Your task to perform on an android device: Play the last video I watched on Youtube Image 0: 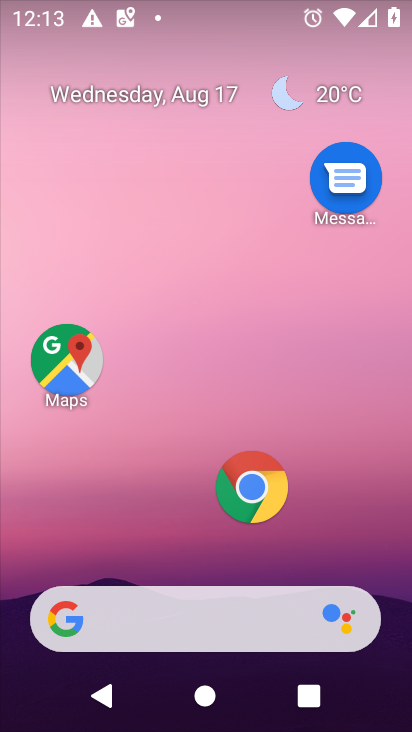
Step 0: drag from (168, 514) to (383, 521)
Your task to perform on an android device: Play the last video I watched on Youtube Image 1: 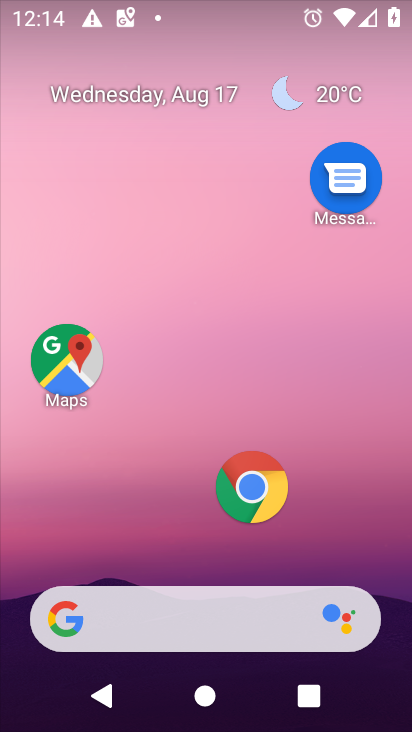
Step 1: drag from (259, 502) to (342, 68)
Your task to perform on an android device: Play the last video I watched on Youtube Image 2: 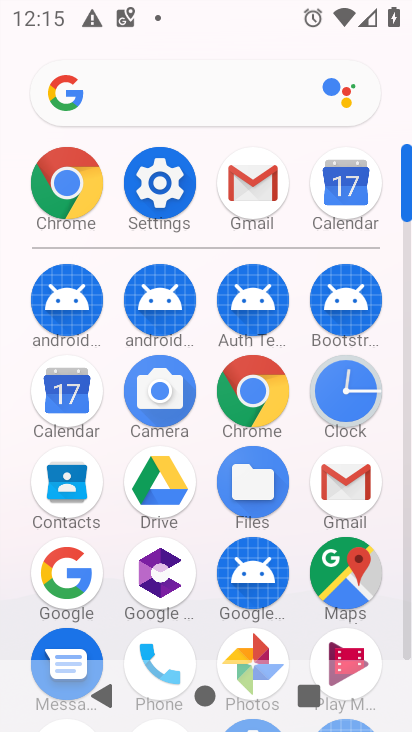
Step 2: drag from (220, 655) to (383, 0)
Your task to perform on an android device: Play the last video I watched on Youtube Image 3: 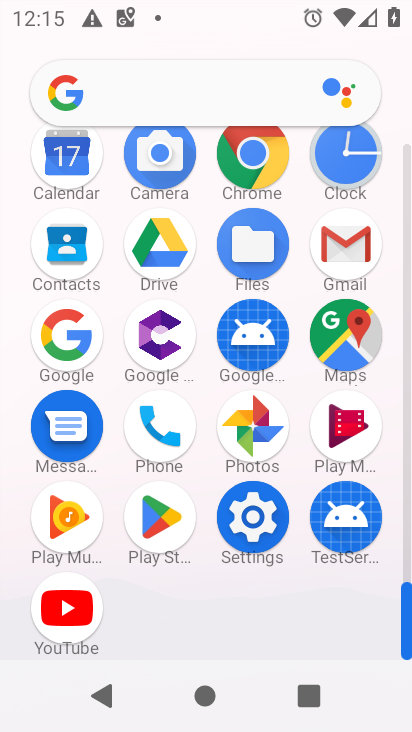
Step 3: click (67, 626)
Your task to perform on an android device: Play the last video I watched on Youtube Image 4: 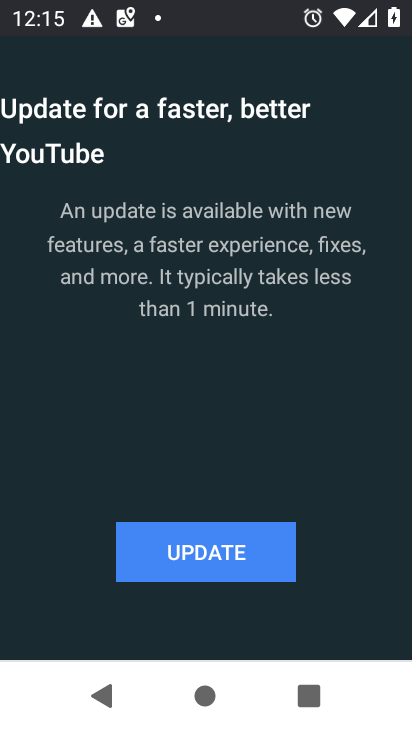
Step 4: click (244, 551)
Your task to perform on an android device: Play the last video I watched on Youtube Image 5: 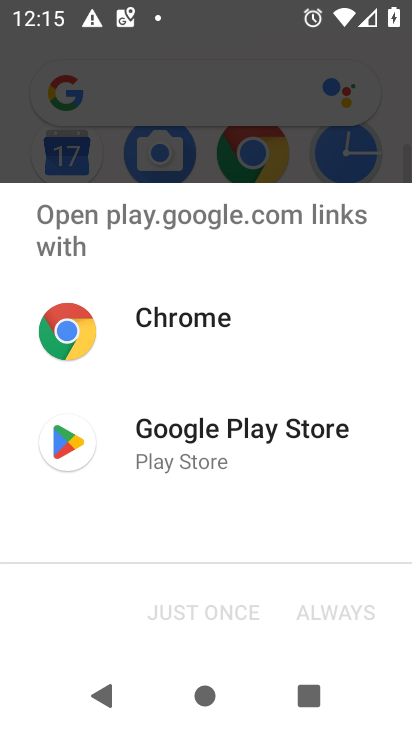
Step 5: click (215, 449)
Your task to perform on an android device: Play the last video I watched on Youtube Image 6: 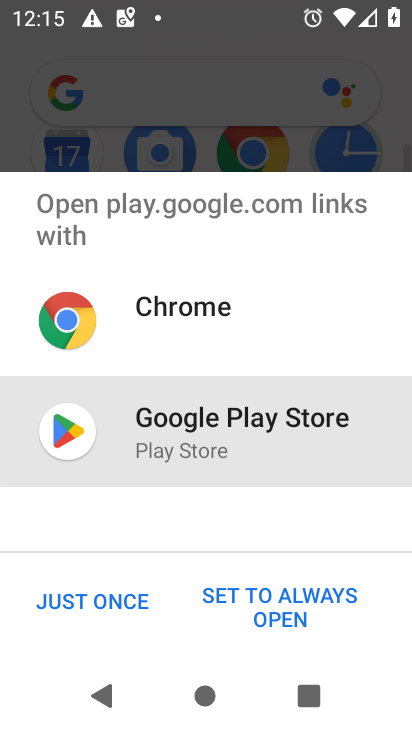
Step 6: click (90, 606)
Your task to perform on an android device: Play the last video I watched on Youtube Image 7: 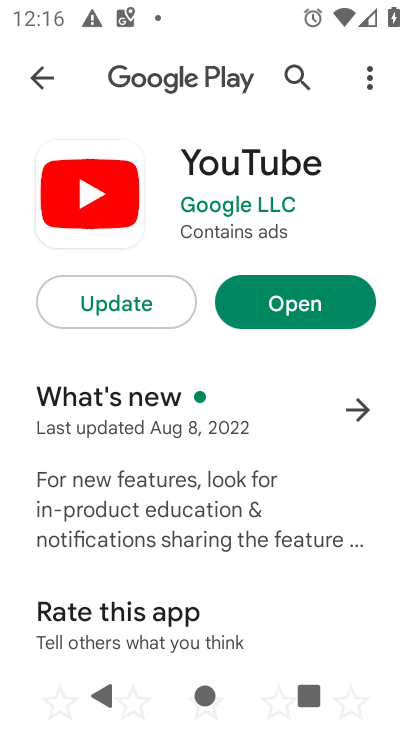
Step 7: click (142, 305)
Your task to perform on an android device: Play the last video I watched on Youtube Image 8: 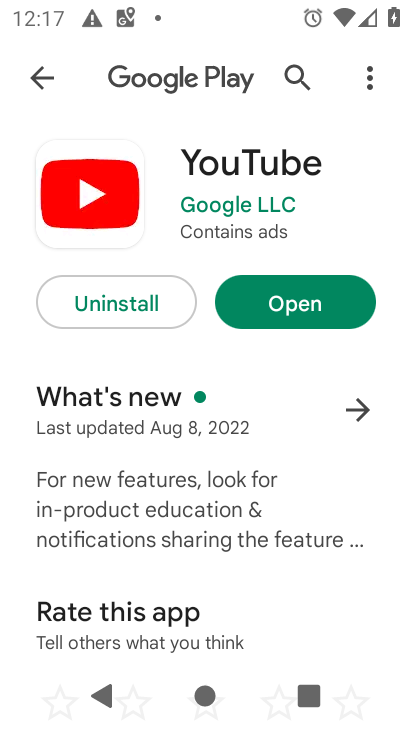
Step 8: click (275, 309)
Your task to perform on an android device: Play the last video I watched on Youtube Image 9: 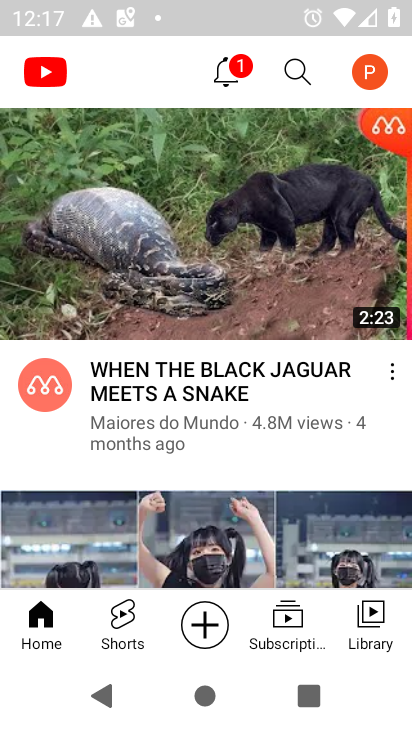
Step 9: click (363, 626)
Your task to perform on an android device: Play the last video I watched on Youtube Image 10: 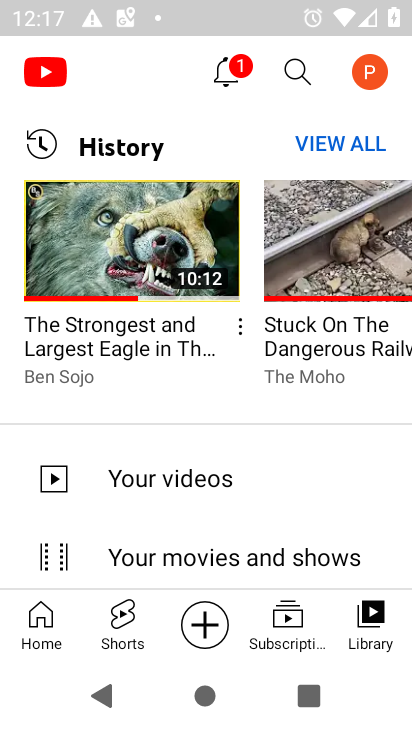
Step 10: click (109, 251)
Your task to perform on an android device: Play the last video I watched on Youtube Image 11: 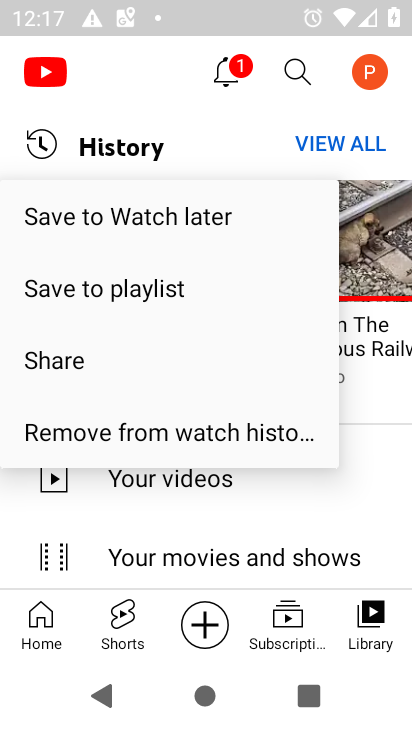
Step 11: click (81, 528)
Your task to perform on an android device: Play the last video I watched on Youtube Image 12: 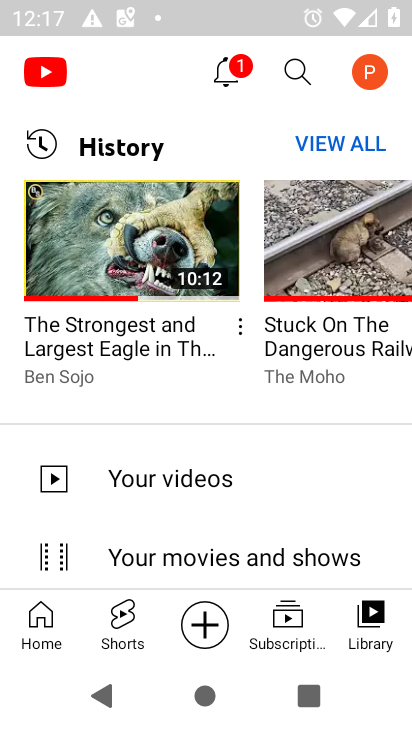
Step 12: click (102, 256)
Your task to perform on an android device: Play the last video I watched on Youtube Image 13: 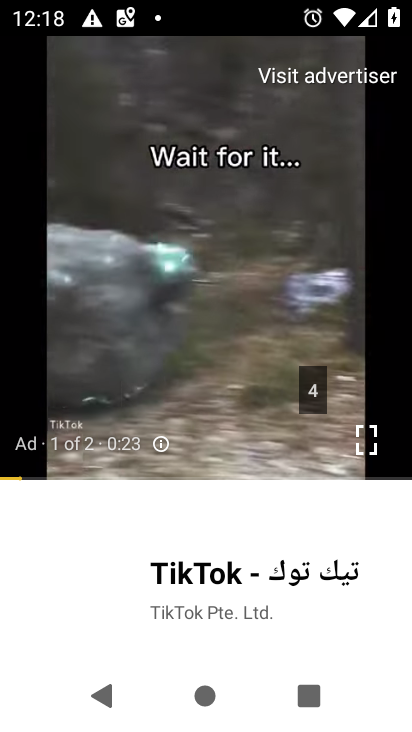
Step 13: click (173, 240)
Your task to perform on an android device: Play the last video I watched on Youtube Image 14: 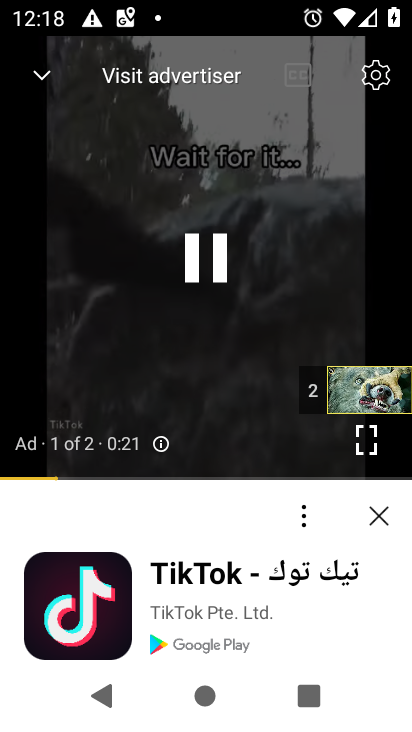
Step 14: click (207, 256)
Your task to perform on an android device: Play the last video I watched on Youtube Image 15: 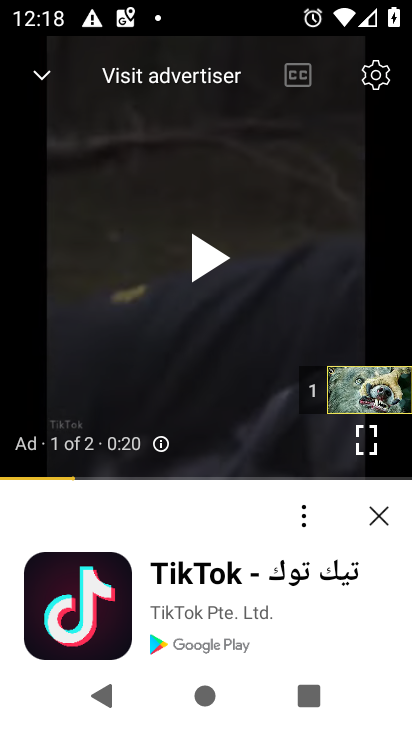
Step 15: task complete